Your task to perform on an android device: open a new tab in the chrome app Image 0: 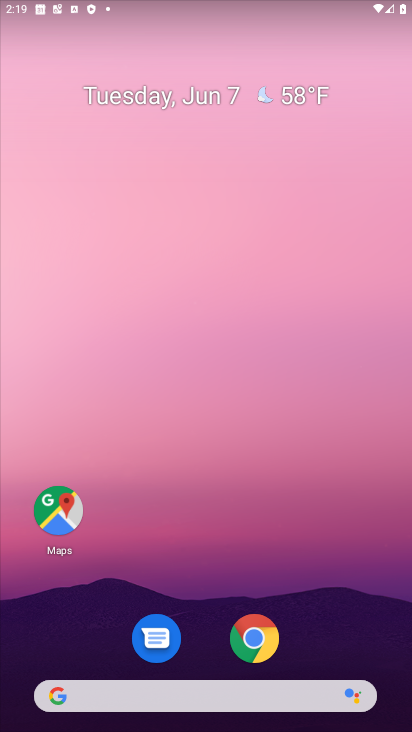
Step 0: drag from (227, 649) to (256, 215)
Your task to perform on an android device: open a new tab in the chrome app Image 1: 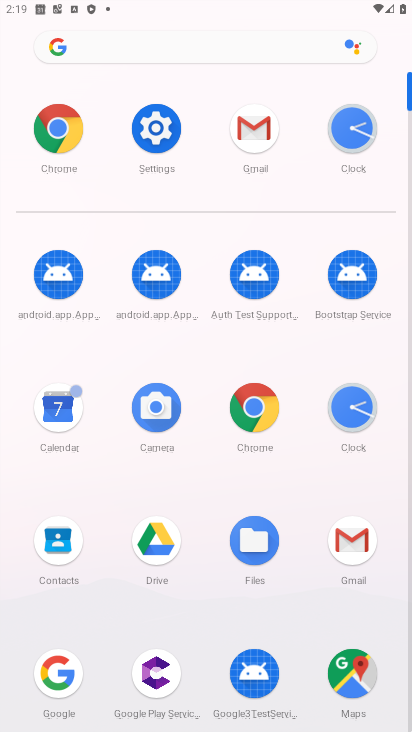
Step 1: click (61, 125)
Your task to perform on an android device: open a new tab in the chrome app Image 2: 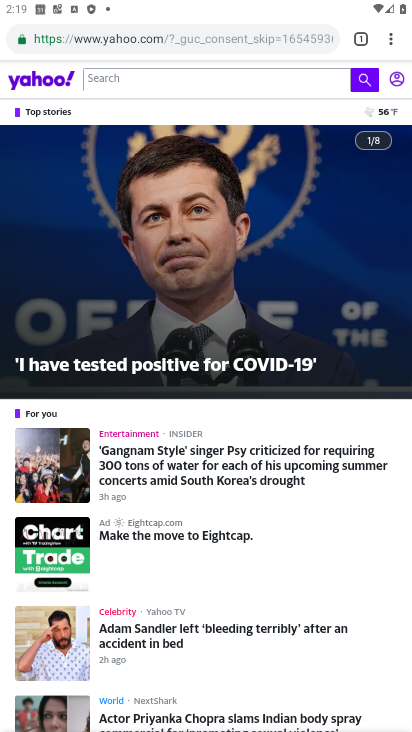
Step 2: click (391, 38)
Your task to perform on an android device: open a new tab in the chrome app Image 3: 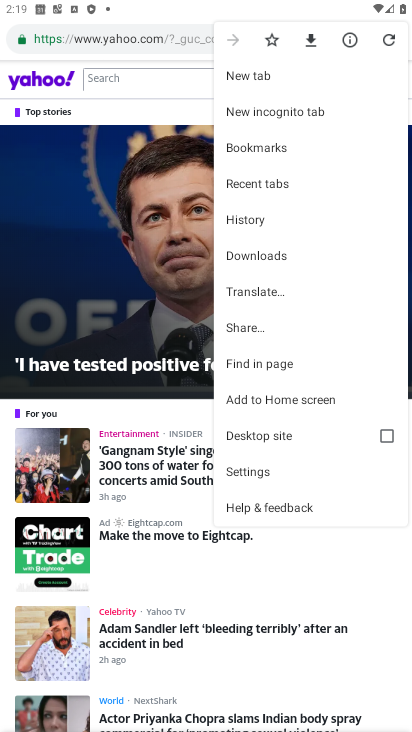
Step 3: click (261, 73)
Your task to perform on an android device: open a new tab in the chrome app Image 4: 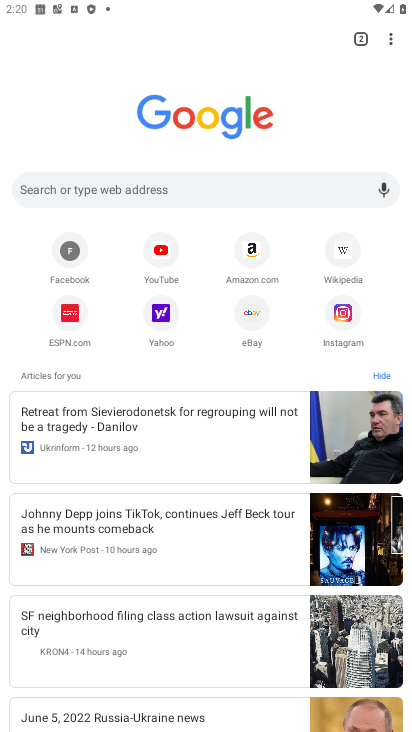
Step 4: task complete